Your task to perform on an android device: move a message to another label in the gmail app Image 0: 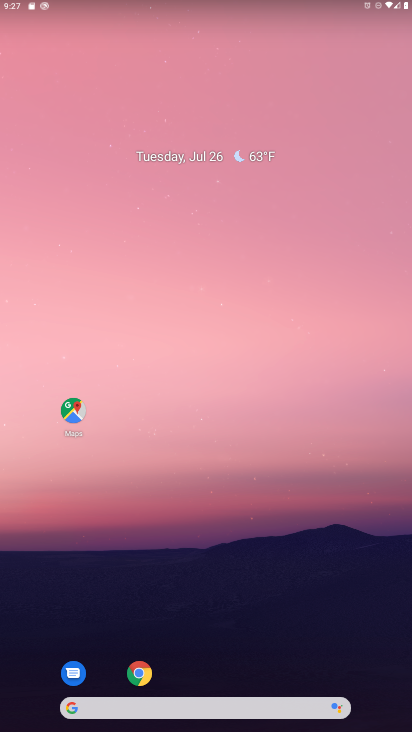
Step 0: drag from (362, 600) to (138, 39)
Your task to perform on an android device: move a message to another label in the gmail app Image 1: 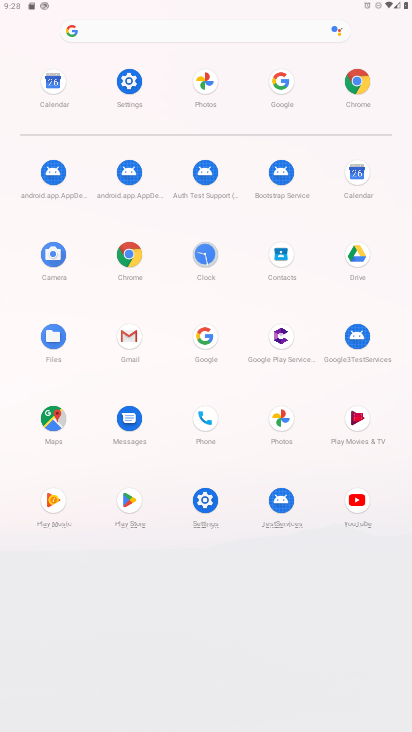
Step 1: click (125, 339)
Your task to perform on an android device: move a message to another label in the gmail app Image 2: 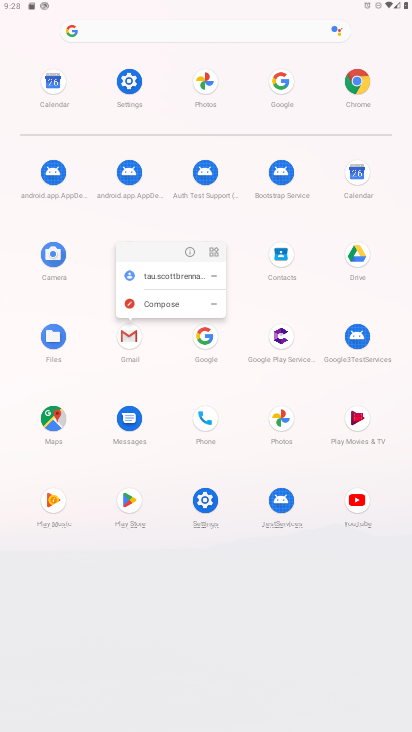
Step 2: click (129, 338)
Your task to perform on an android device: move a message to another label in the gmail app Image 3: 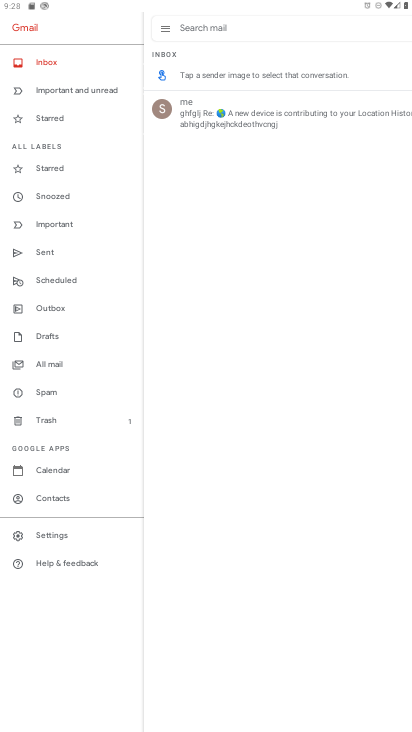
Step 3: task complete